Your task to perform on an android device: stop showing notifications on the lock screen Image 0: 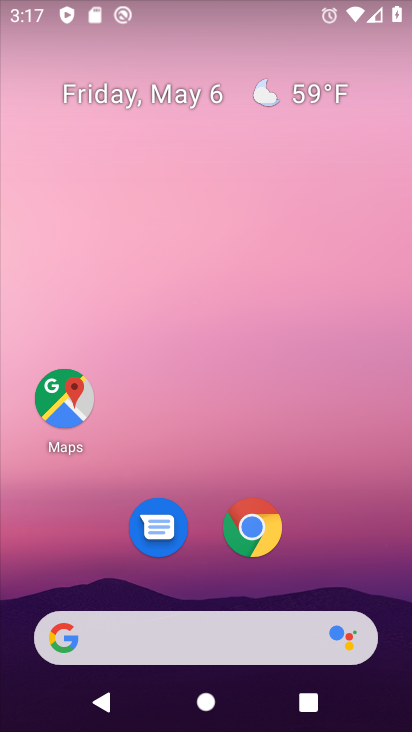
Step 0: drag from (336, 562) to (259, 98)
Your task to perform on an android device: stop showing notifications on the lock screen Image 1: 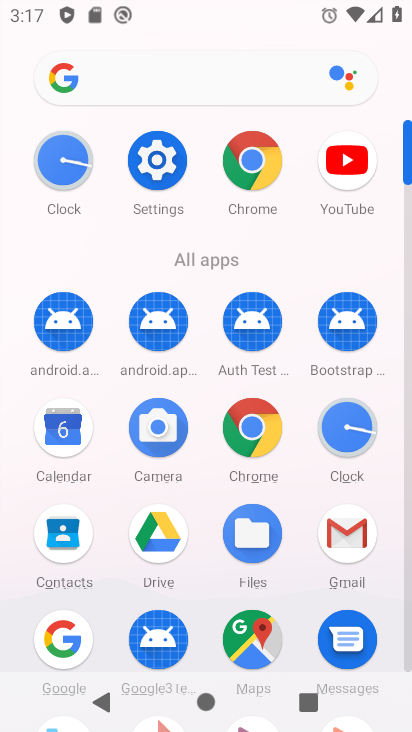
Step 1: click (163, 157)
Your task to perform on an android device: stop showing notifications on the lock screen Image 2: 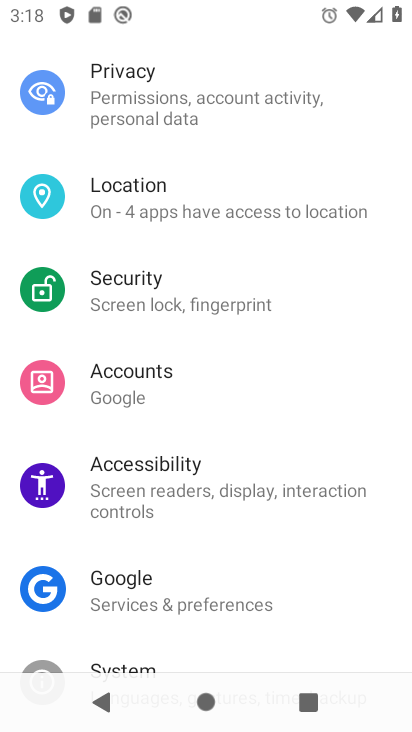
Step 2: drag from (218, 563) to (297, 155)
Your task to perform on an android device: stop showing notifications on the lock screen Image 3: 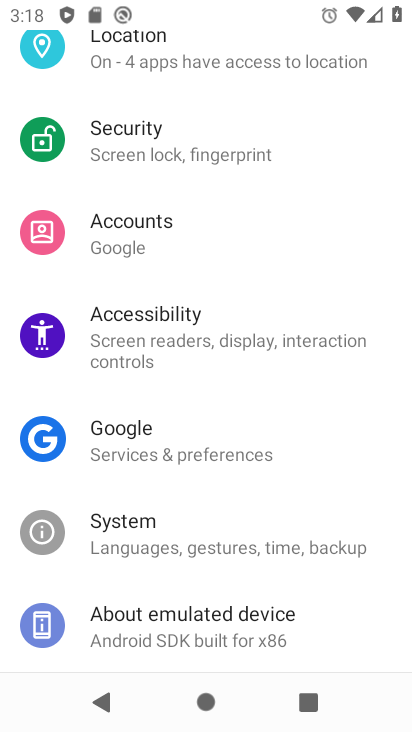
Step 3: drag from (230, 154) to (241, 672)
Your task to perform on an android device: stop showing notifications on the lock screen Image 4: 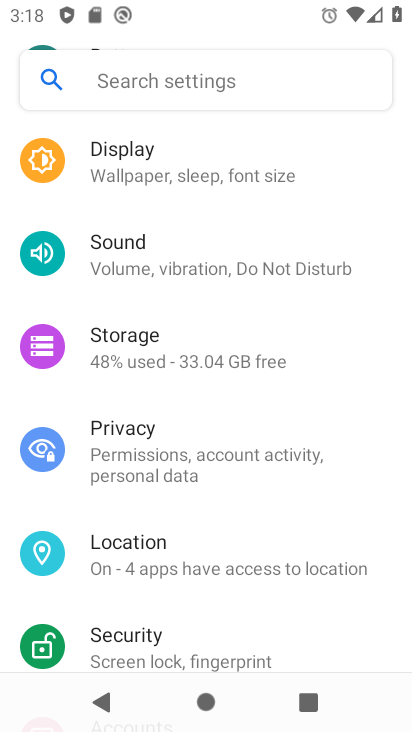
Step 4: drag from (254, 276) to (246, 677)
Your task to perform on an android device: stop showing notifications on the lock screen Image 5: 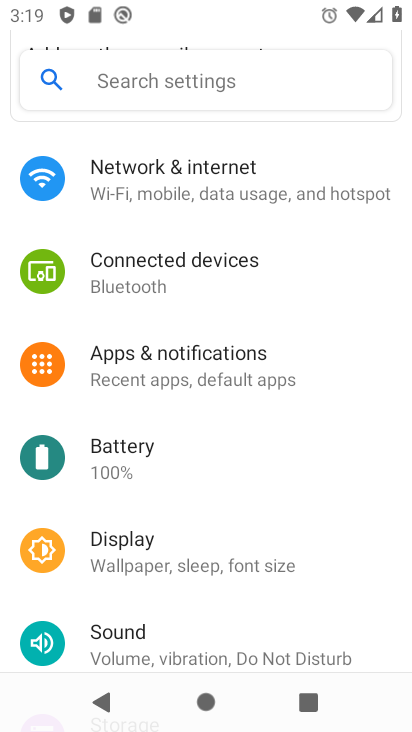
Step 5: click (192, 367)
Your task to perform on an android device: stop showing notifications on the lock screen Image 6: 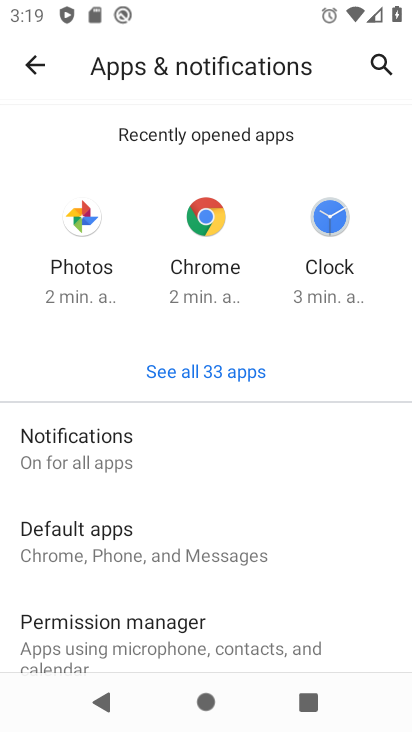
Step 6: click (103, 454)
Your task to perform on an android device: stop showing notifications on the lock screen Image 7: 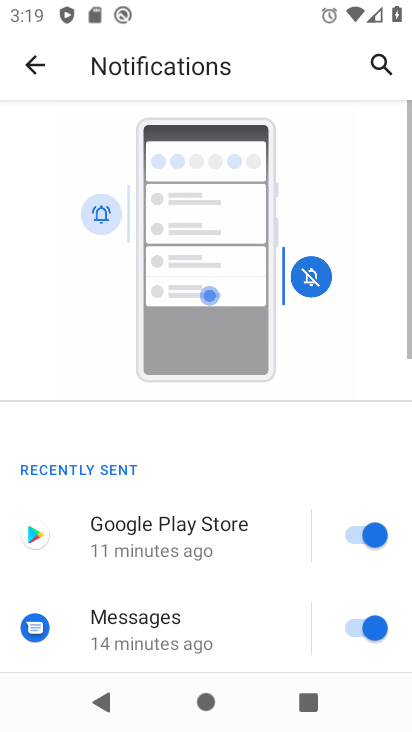
Step 7: drag from (170, 639) to (242, 192)
Your task to perform on an android device: stop showing notifications on the lock screen Image 8: 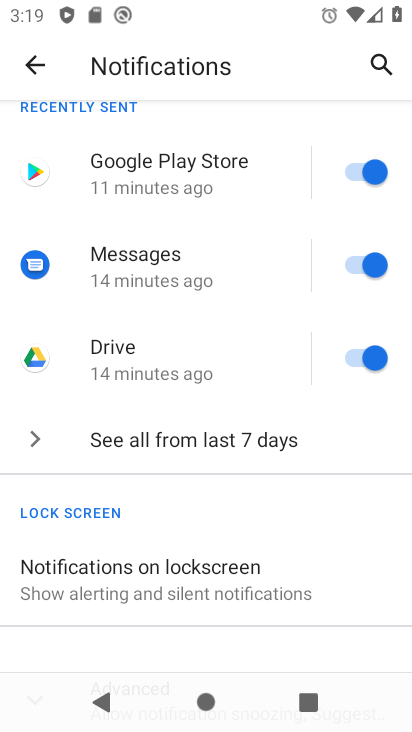
Step 8: click (169, 570)
Your task to perform on an android device: stop showing notifications on the lock screen Image 9: 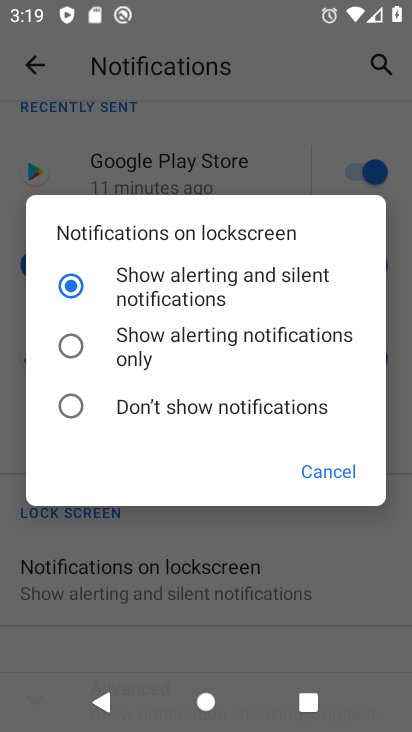
Step 9: click (221, 405)
Your task to perform on an android device: stop showing notifications on the lock screen Image 10: 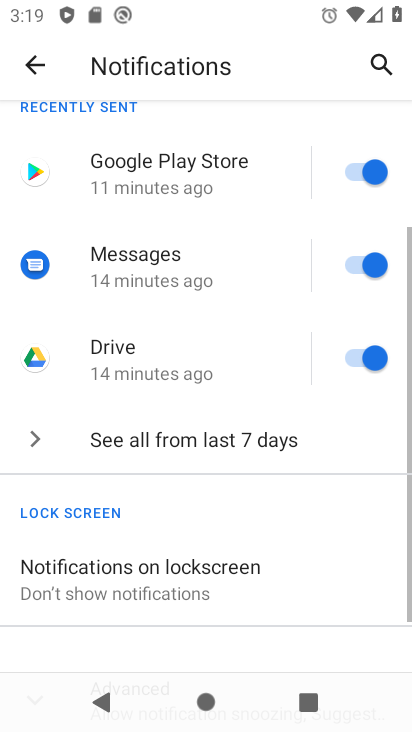
Step 10: task complete